Your task to perform on an android device: Open the downloads Image 0: 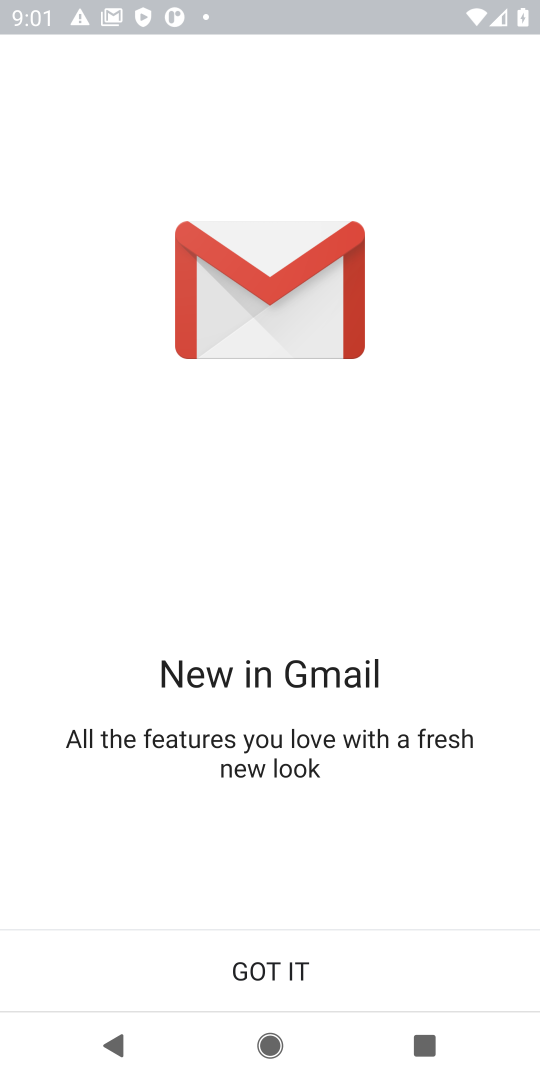
Step 0: press home button
Your task to perform on an android device: Open the downloads Image 1: 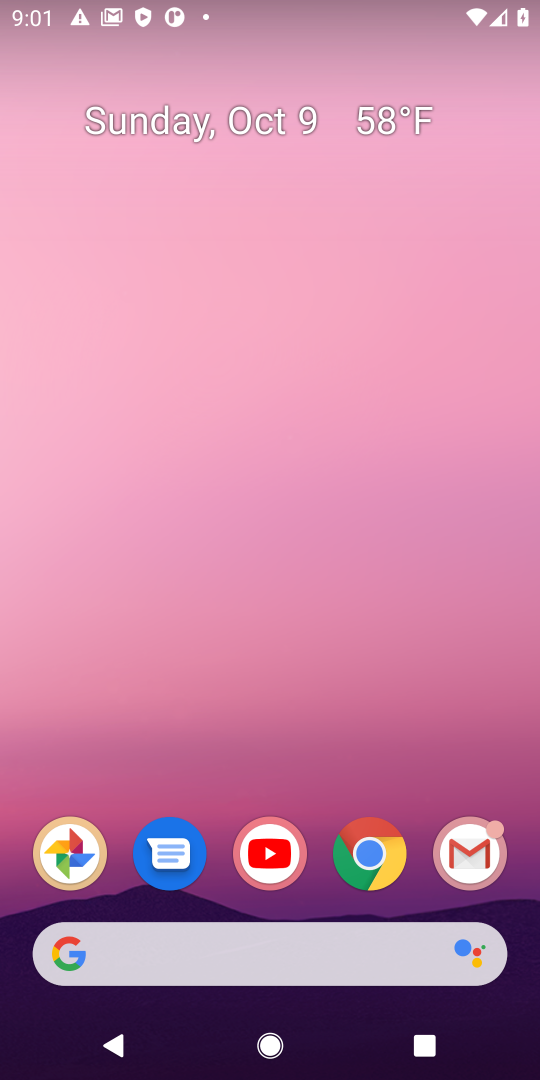
Step 1: drag from (354, 778) to (296, 265)
Your task to perform on an android device: Open the downloads Image 2: 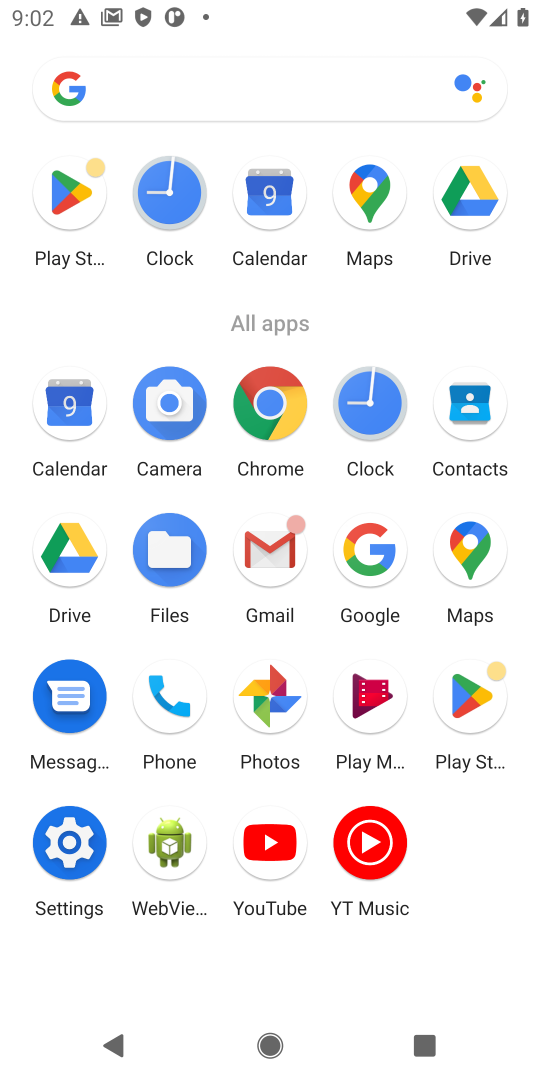
Step 2: click (164, 571)
Your task to perform on an android device: Open the downloads Image 3: 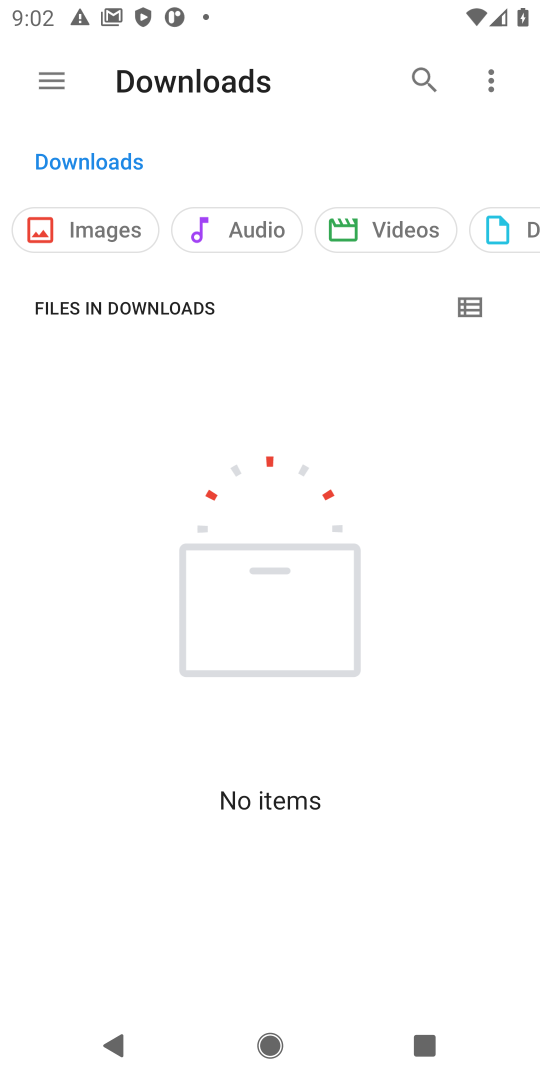
Step 3: task complete